Your task to perform on an android device: turn notification dots on Image 0: 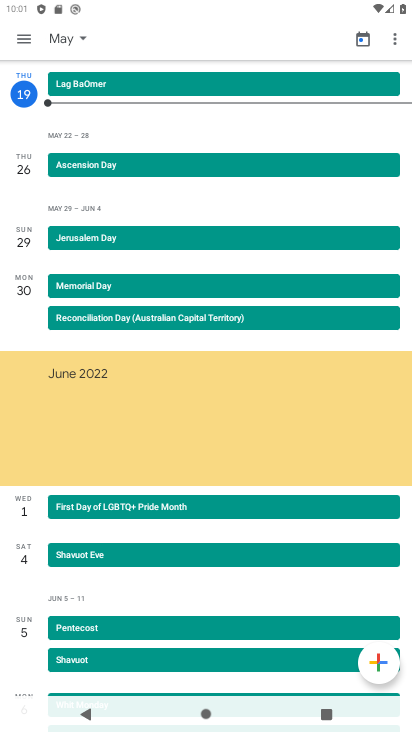
Step 0: drag from (398, 678) to (385, 440)
Your task to perform on an android device: turn notification dots on Image 1: 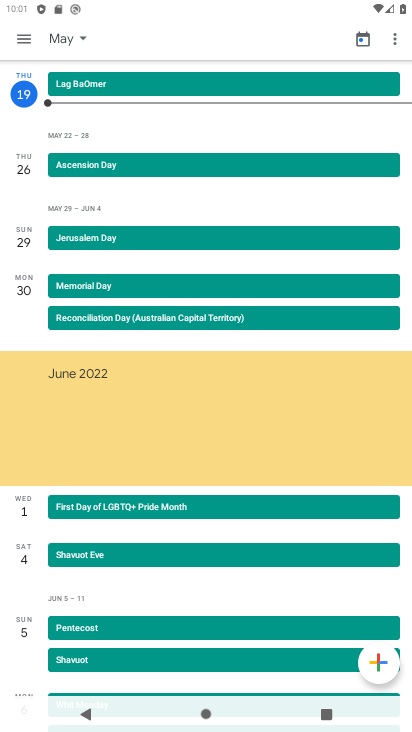
Step 1: press home button
Your task to perform on an android device: turn notification dots on Image 2: 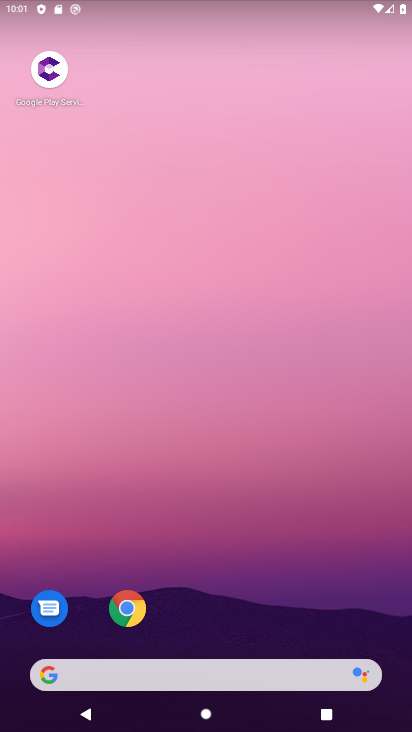
Step 2: drag from (389, 665) to (370, 302)
Your task to perform on an android device: turn notification dots on Image 3: 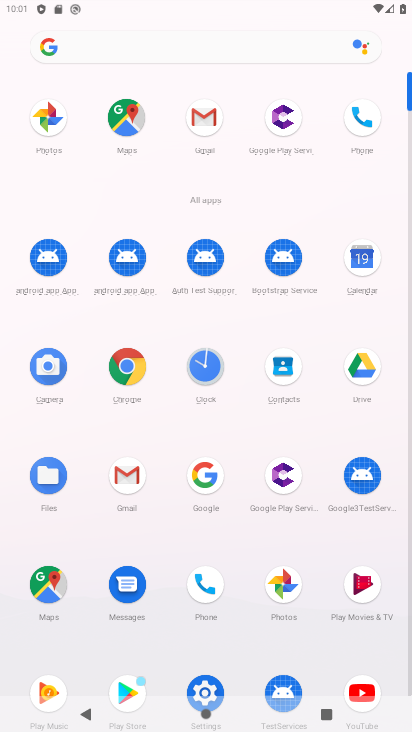
Step 3: click (200, 681)
Your task to perform on an android device: turn notification dots on Image 4: 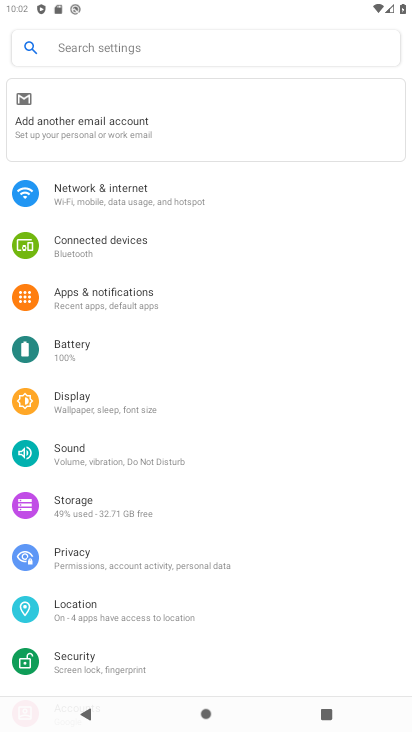
Step 4: drag from (306, 651) to (313, 369)
Your task to perform on an android device: turn notification dots on Image 5: 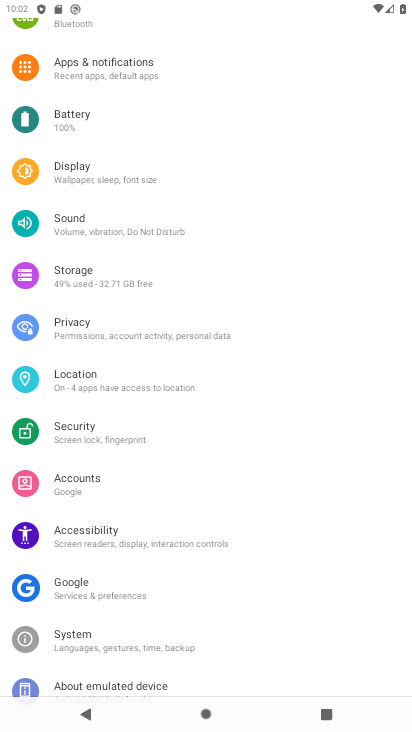
Step 5: drag from (296, 616) to (288, 383)
Your task to perform on an android device: turn notification dots on Image 6: 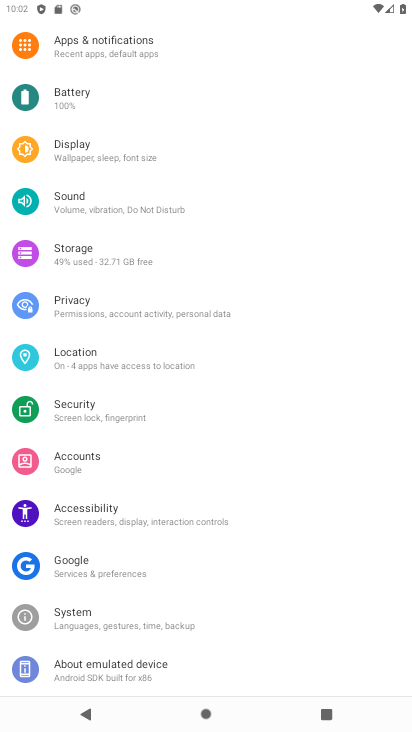
Step 6: click (72, 44)
Your task to perform on an android device: turn notification dots on Image 7: 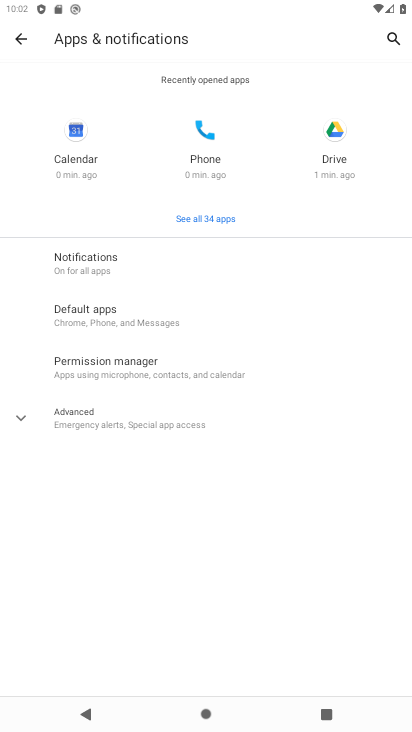
Step 7: click (77, 266)
Your task to perform on an android device: turn notification dots on Image 8: 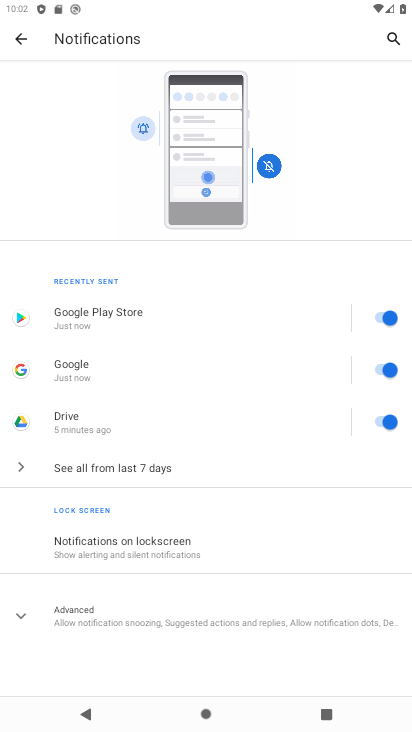
Step 8: click (24, 615)
Your task to perform on an android device: turn notification dots on Image 9: 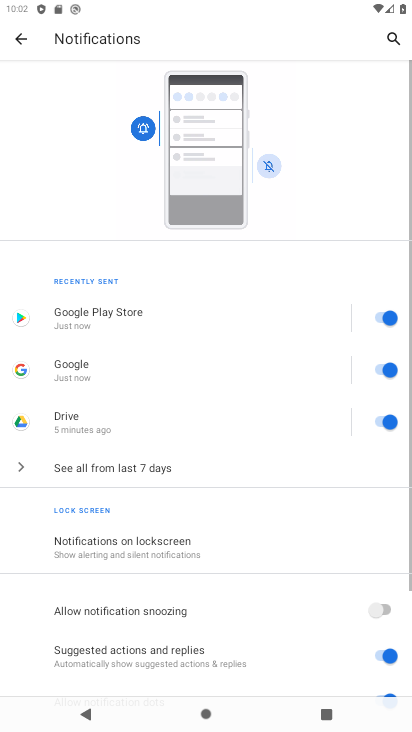
Step 9: task complete